Your task to perform on an android device: Open battery settings Image 0: 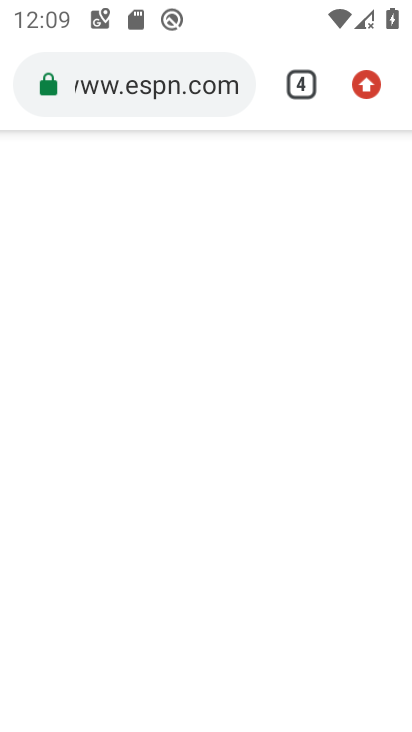
Step 0: press home button
Your task to perform on an android device: Open battery settings Image 1: 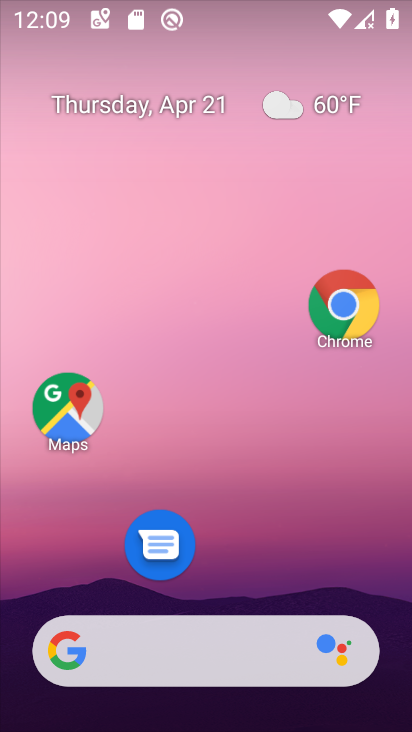
Step 1: drag from (195, 619) to (262, 50)
Your task to perform on an android device: Open battery settings Image 2: 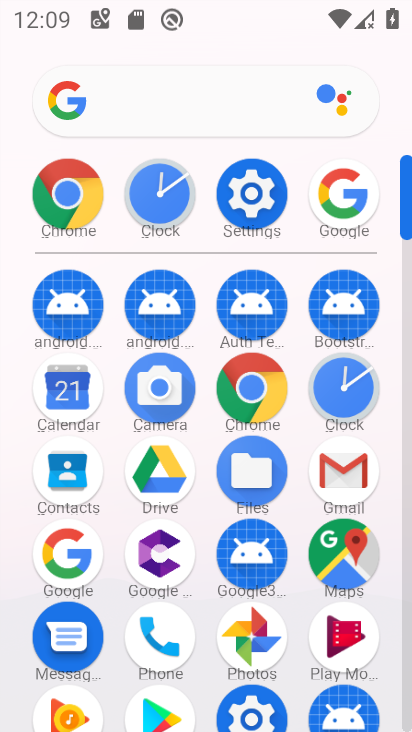
Step 2: click (247, 223)
Your task to perform on an android device: Open battery settings Image 3: 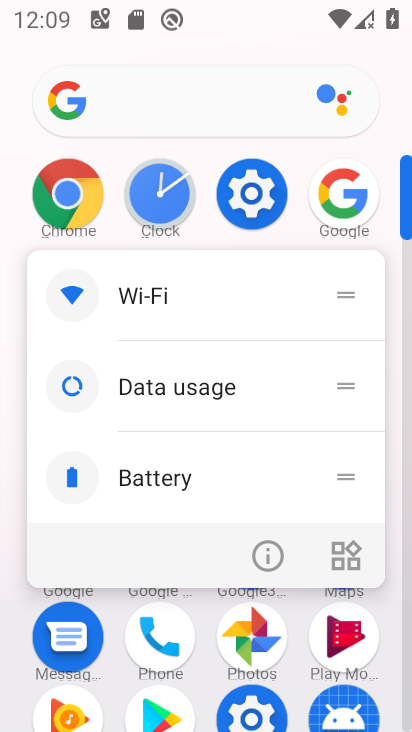
Step 3: click (243, 221)
Your task to perform on an android device: Open battery settings Image 4: 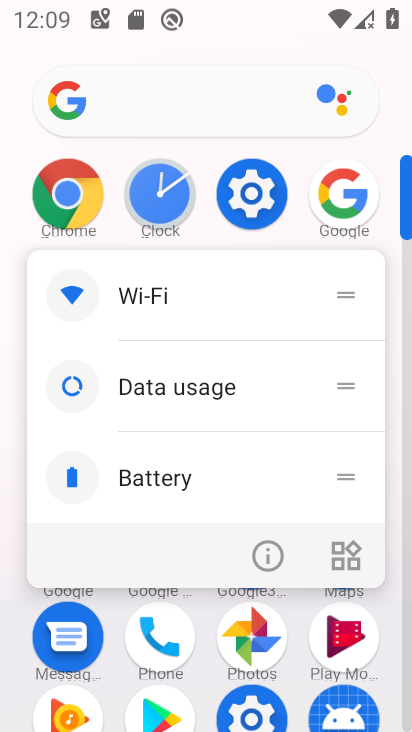
Step 4: click (251, 182)
Your task to perform on an android device: Open battery settings Image 5: 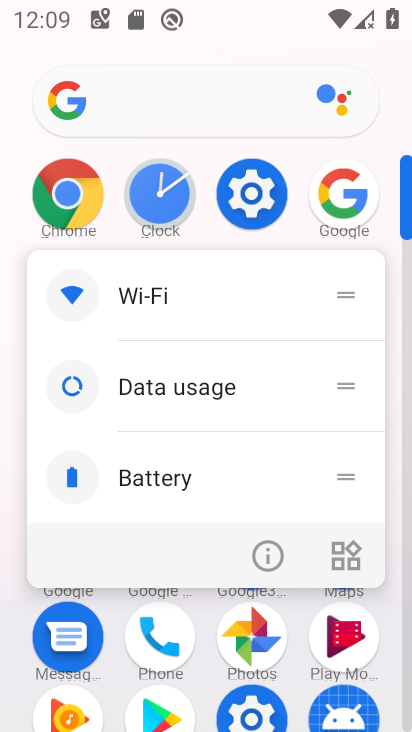
Step 5: click (267, 203)
Your task to perform on an android device: Open battery settings Image 6: 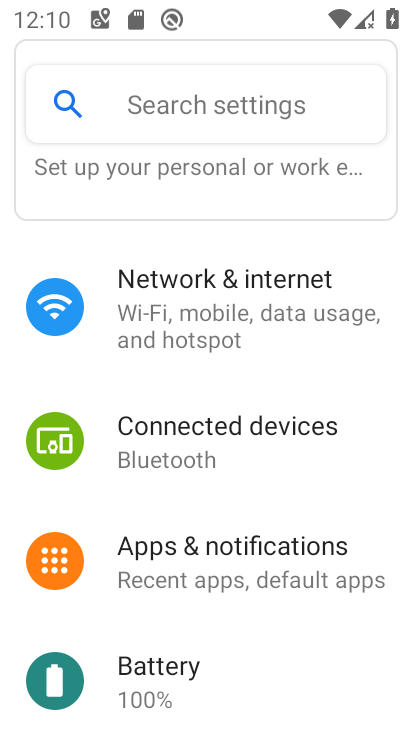
Step 6: click (157, 674)
Your task to perform on an android device: Open battery settings Image 7: 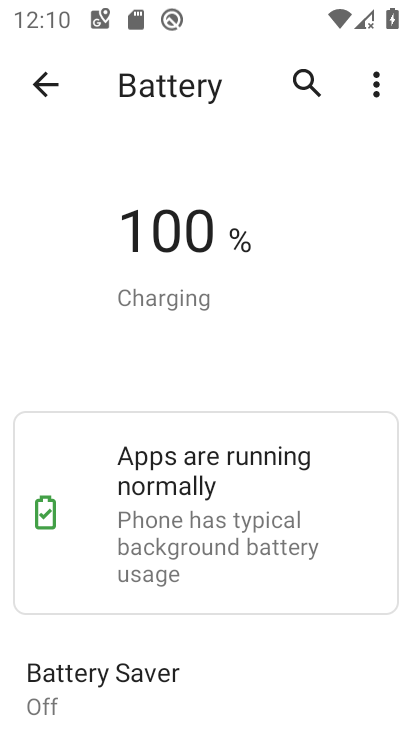
Step 7: task complete